Your task to perform on an android device: set default search engine in the chrome app Image 0: 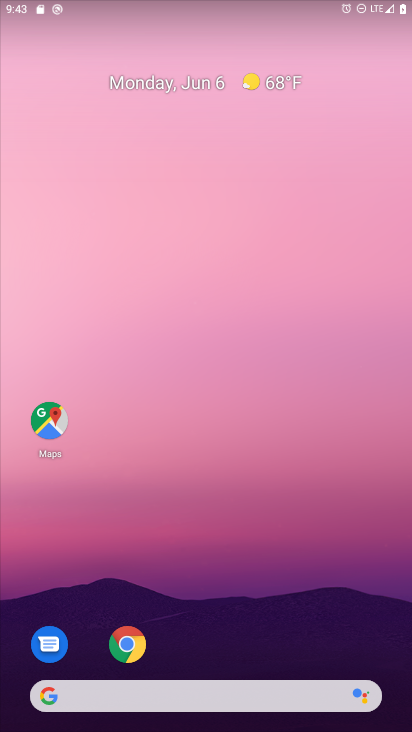
Step 0: drag from (253, 705) to (242, 212)
Your task to perform on an android device: set default search engine in the chrome app Image 1: 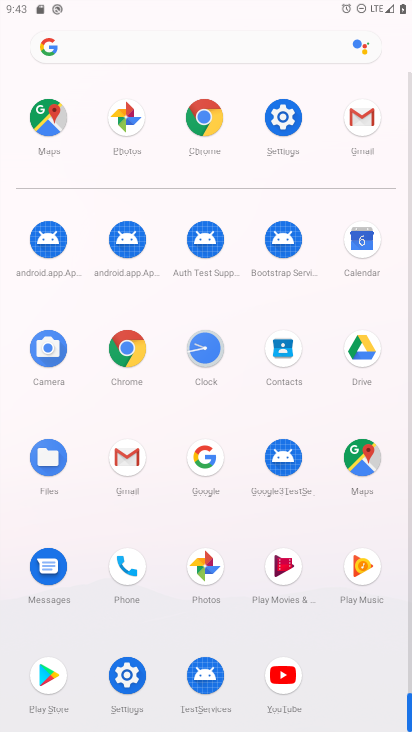
Step 1: click (217, 132)
Your task to perform on an android device: set default search engine in the chrome app Image 2: 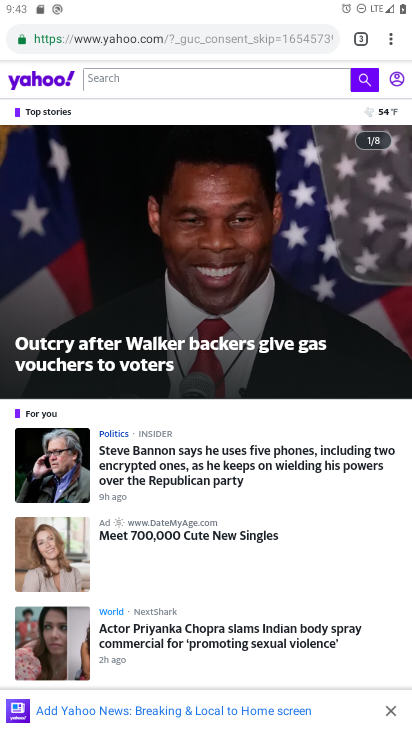
Step 2: click (388, 42)
Your task to perform on an android device: set default search engine in the chrome app Image 3: 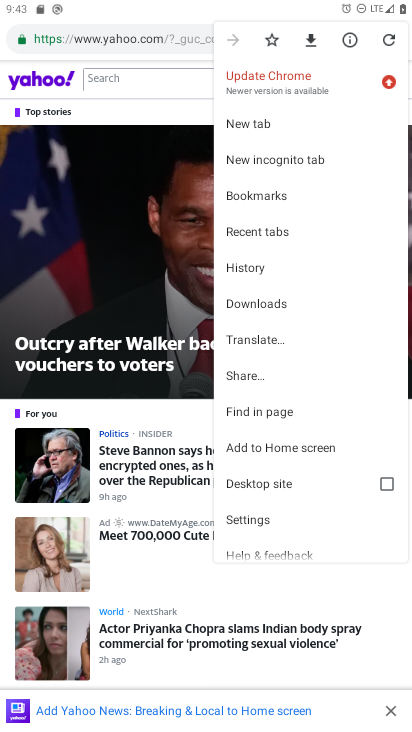
Step 3: click (247, 520)
Your task to perform on an android device: set default search engine in the chrome app Image 4: 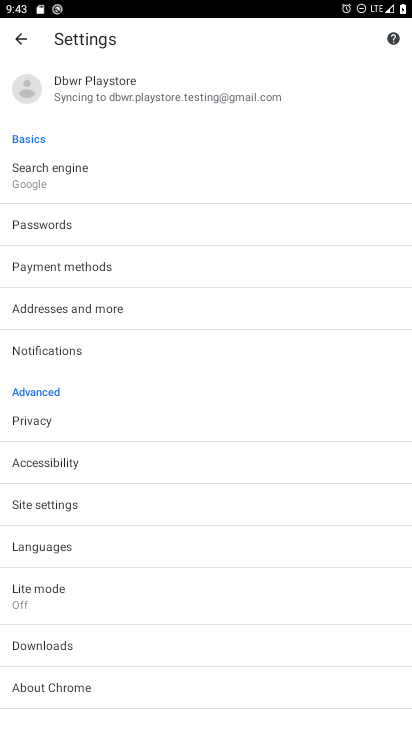
Step 4: click (95, 174)
Your task to perform on an android device: set default search engine in the chrome app Image 5: 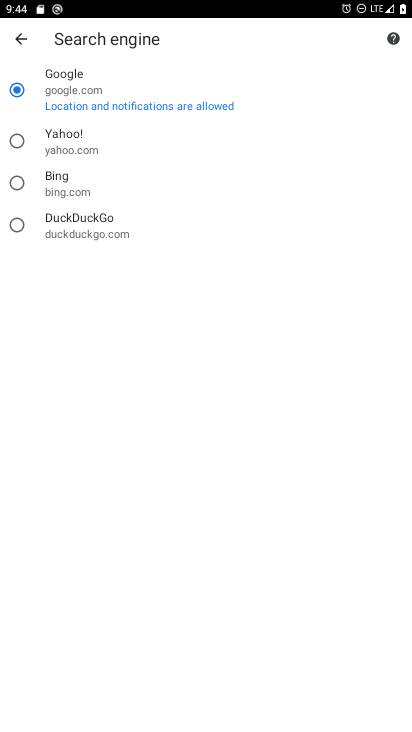
Step 5: task complete